Your task to perform on an android device: Open maps Image 0: 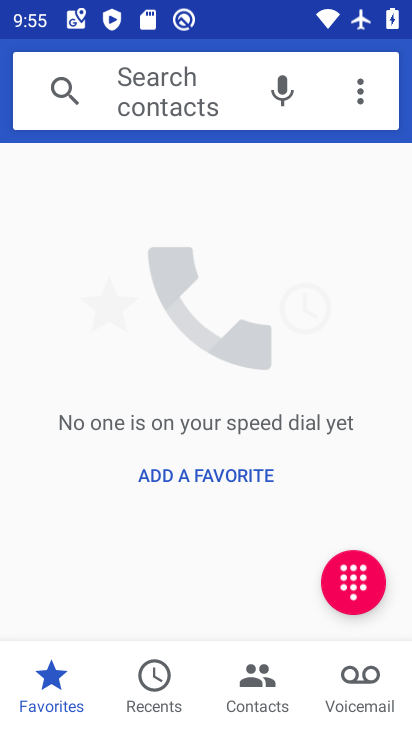
Step 0: press home button
Your task to perform on an android device: Open maps Image 1: 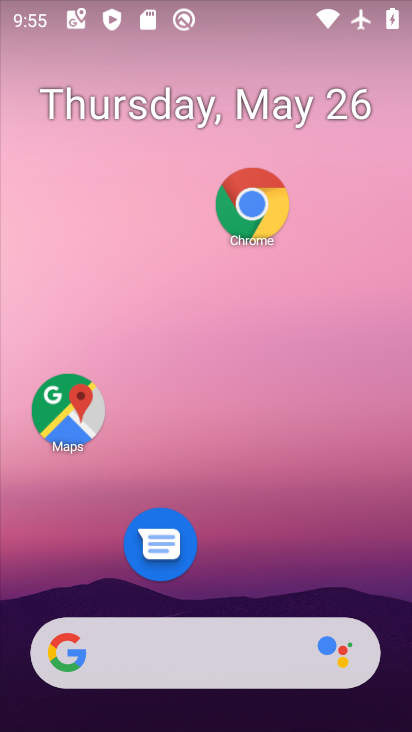
Step 1: click (66, 408)
Your task to perform on an android device: Open maps Image 2: 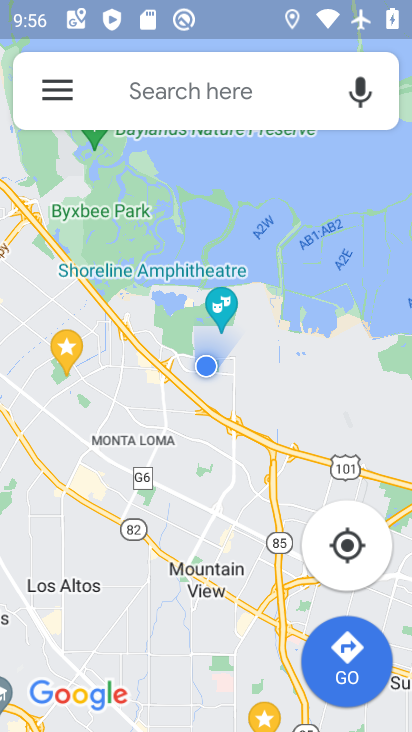
Step 2: task complete